Your task to perform on an android device: Go to Reddit.com Image 0: 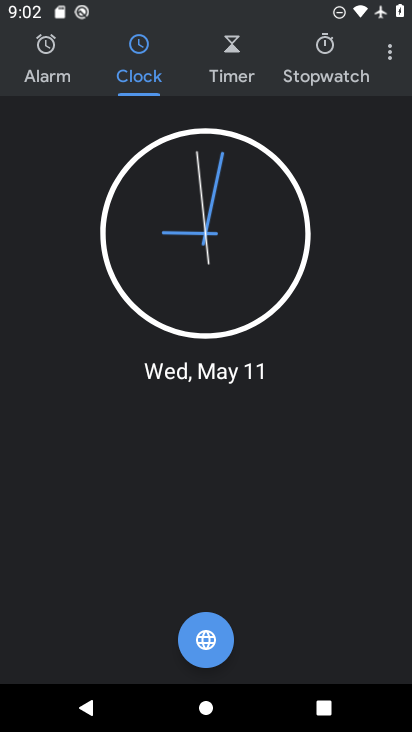
Step 0: press home button
Your task to perform on an android device: Go to Reddit.com Image 1: 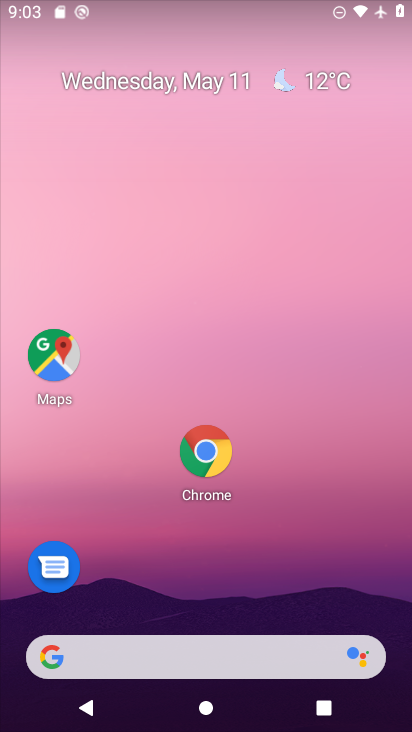
Step 1: click (209, 447)
Your task to perform on an android device: Go to Reddit.com Image 2: 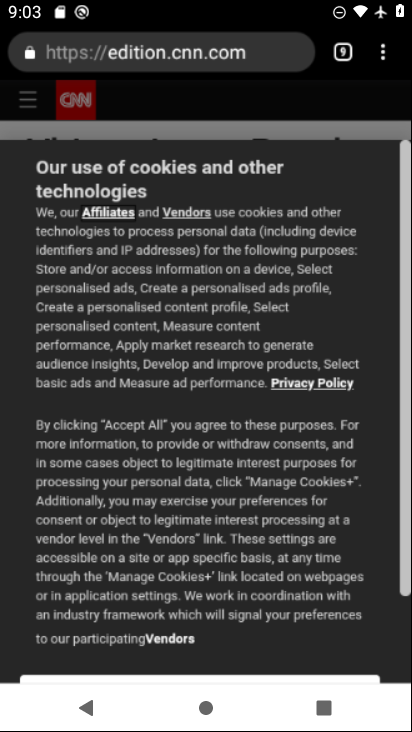
Step 2: drag from (381, 54) to (250, 102)
Your task to perform on an android device: Go to Reddit.com Image 3: 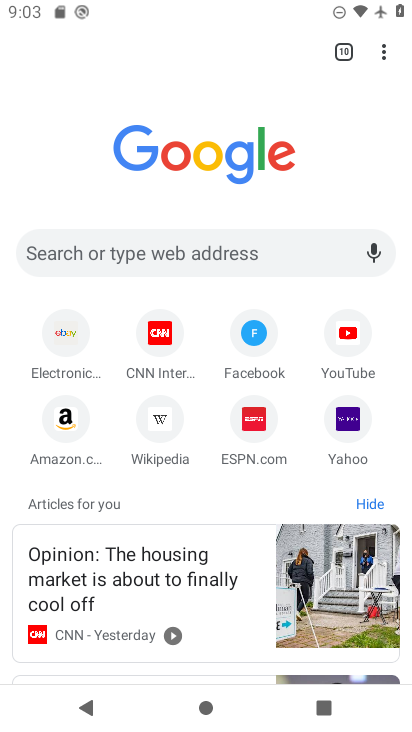
Step 3: click (110, 243)
Your task to perform on an android device: Go to Reddit.com Image 4: 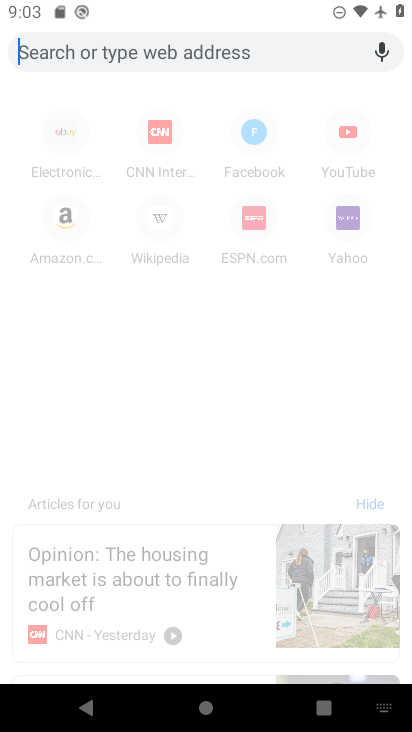
Step 4: type "reddit.com"
Your task to perform on an android device: Go to Reddit.com Image 5: 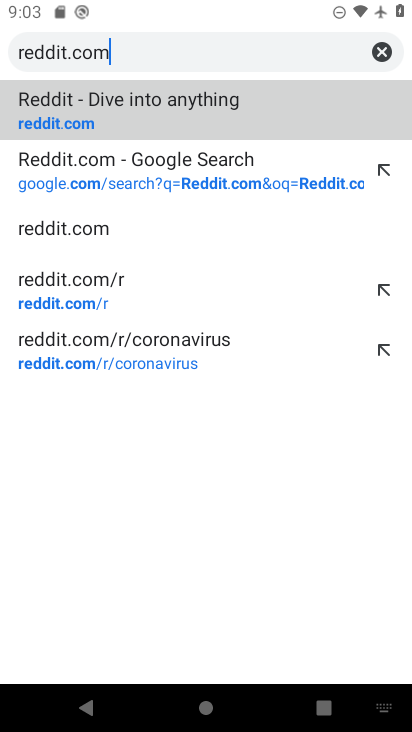
Step 5: click (145, 114)
Your task to perform on an android device: Go to Reddit.com Image 6: 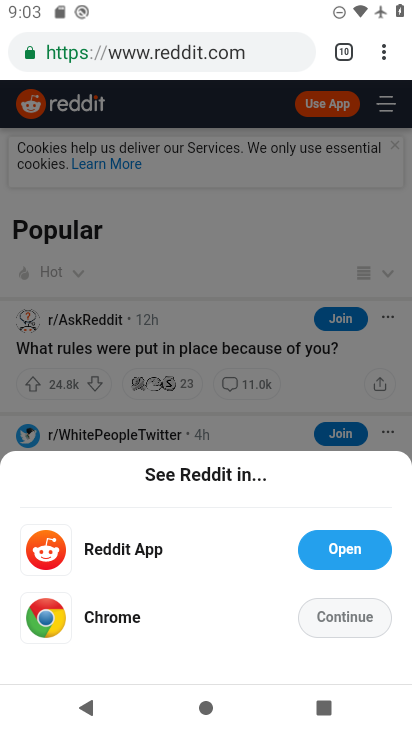
Step 6: task complete